Your task to perform on an android device: Go to settings Image 0: 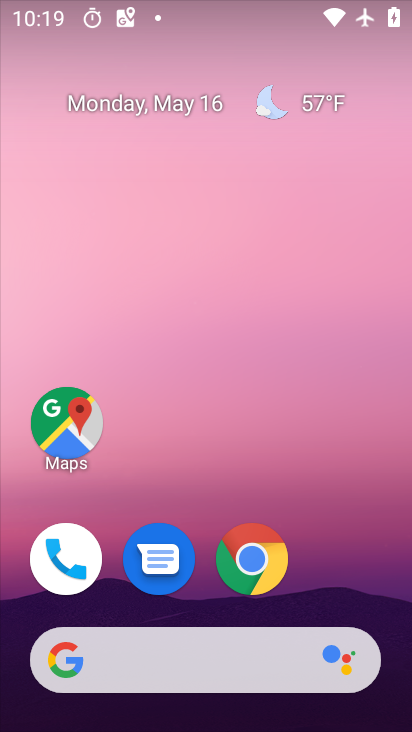
Step 0: drag from (342, 529) to (351, 123)
Your task to perform on an android device: Go to settings Image 1: 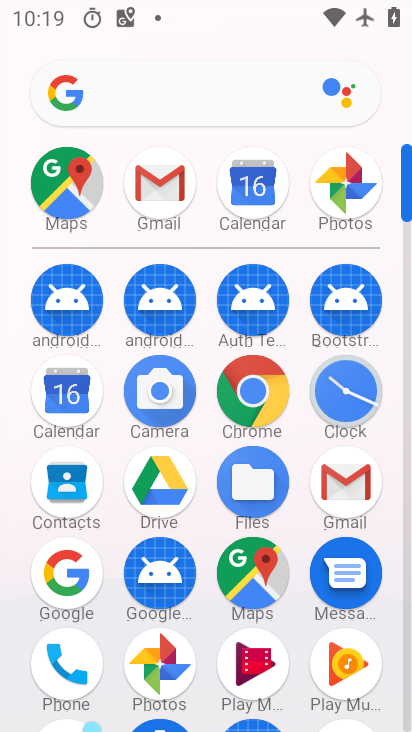
Step 1: drag from (205, 547) to (288, 114)
Your task to perform on an android device: Go to settings Image 2: 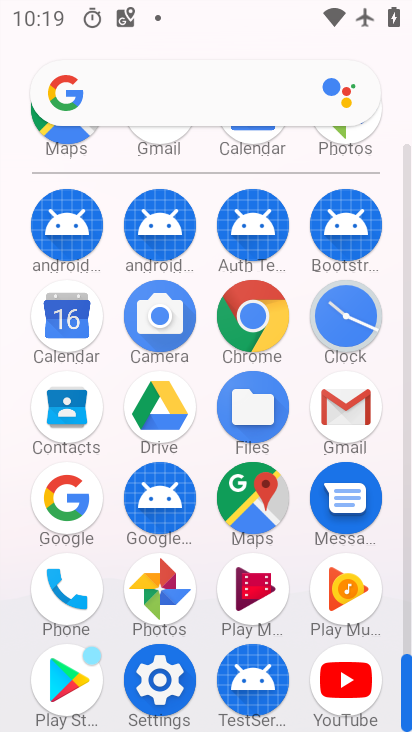
Step 2: click (153, 699)
Your task to perform on an android device: Go to settings Image 3: 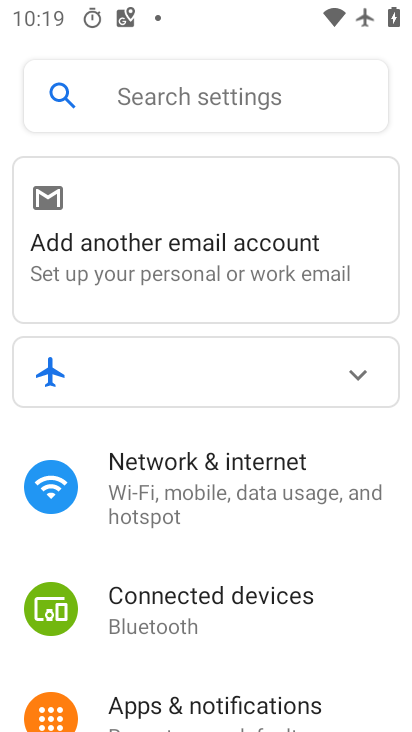
Step 3: task complete